Your task to perform on an android device: open the mobile data screen to see how much data has been used Image 0: 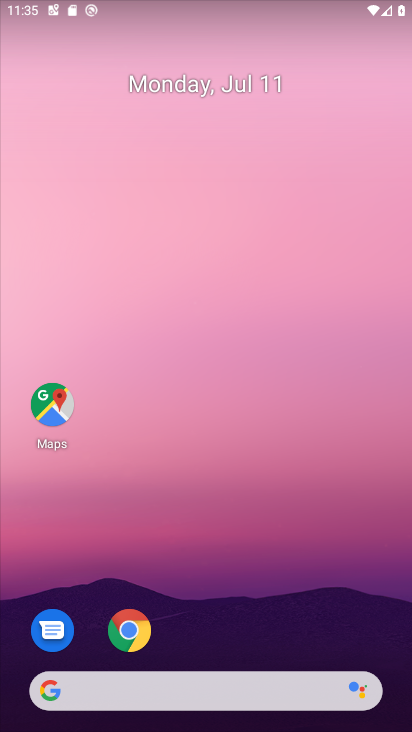
Step 0: drag from (163, 451) to (155, 7)
Your task to perform on an android device: open the mobile data screen to see how much data has been used Image 1: 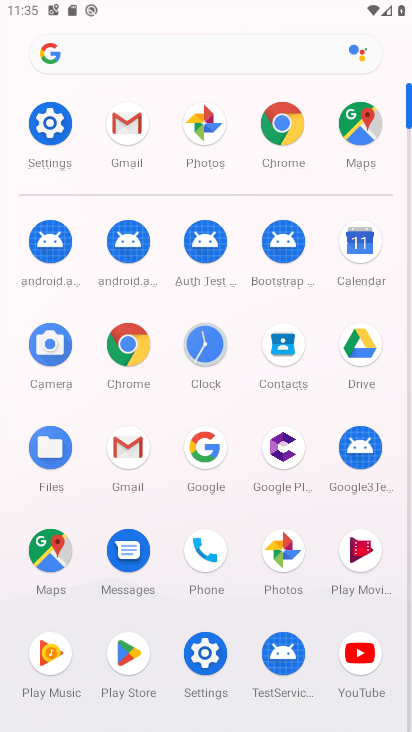
Step 1: click (213, 664)
Your task to perform on an android device: open the mobile data screen to see how much data has been used Image 2: 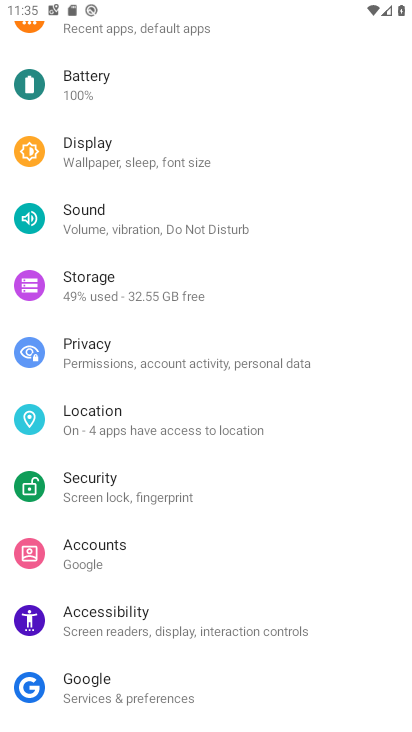
Step 2: drag from (135, 144) to (114, 511)
Your task to perform on an android device: open the mobile data screen to see how much data has been used Image 3: 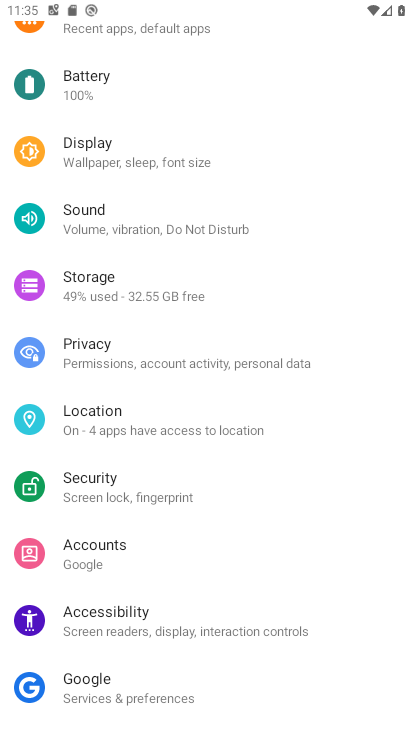
Step 3: drag from (152, 59) to (193, 672)
Your task to perform on an android device: open the mobile data screen to see how much data has been used Image 4: 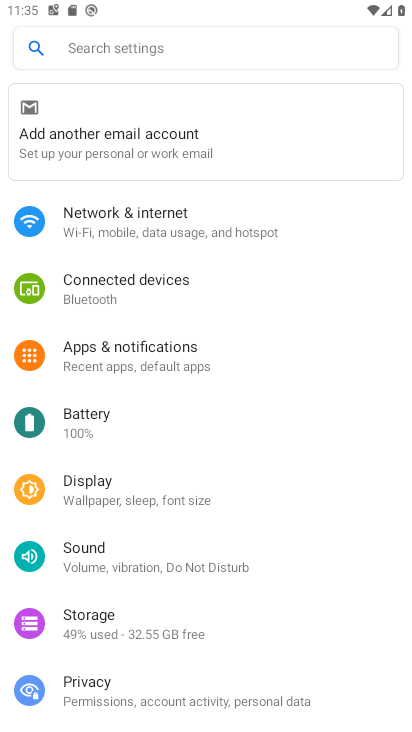
Step 4: click (140, 234)
Your task to perform on an android device: open the mobile data screen to see how much data has been used Image 5: 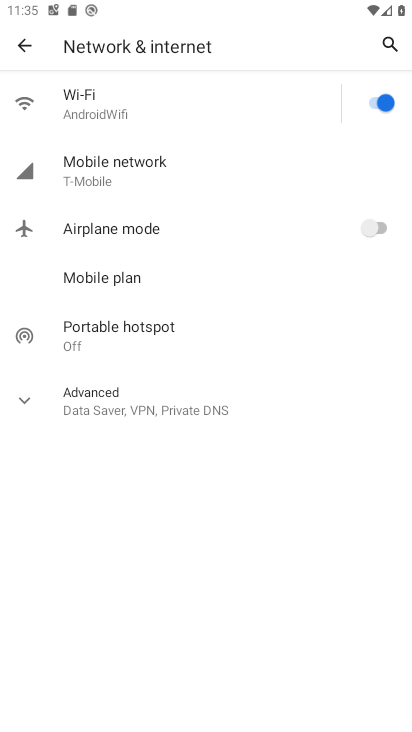
Step 5: click (126, 172)
Your task to perform on an android device: open the mobile data screen to see how much data has been used Image 6: 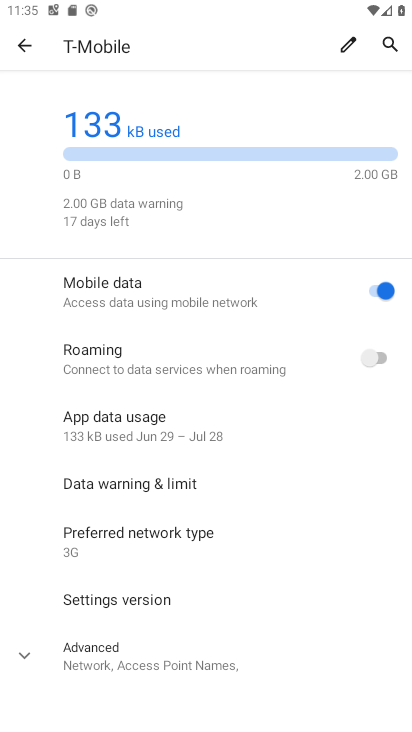
Step 6: click (141, 426)
Your task to perform on an android device: open the mobile data screen to see how much data has been used Image 7: 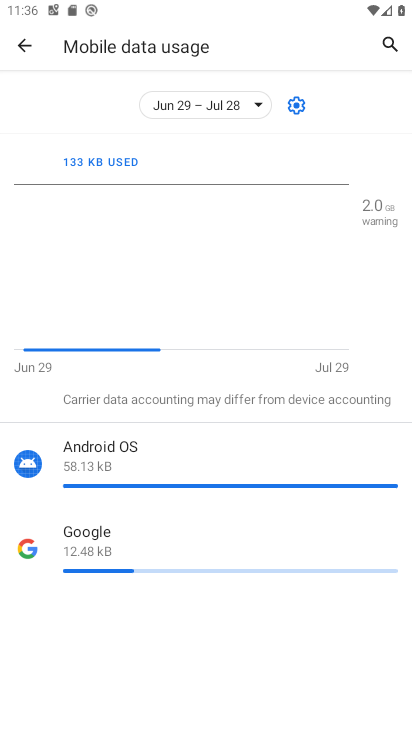
Step 7: task complete